Your task to perform on an android device: turn on bluetooth scan Image 0: 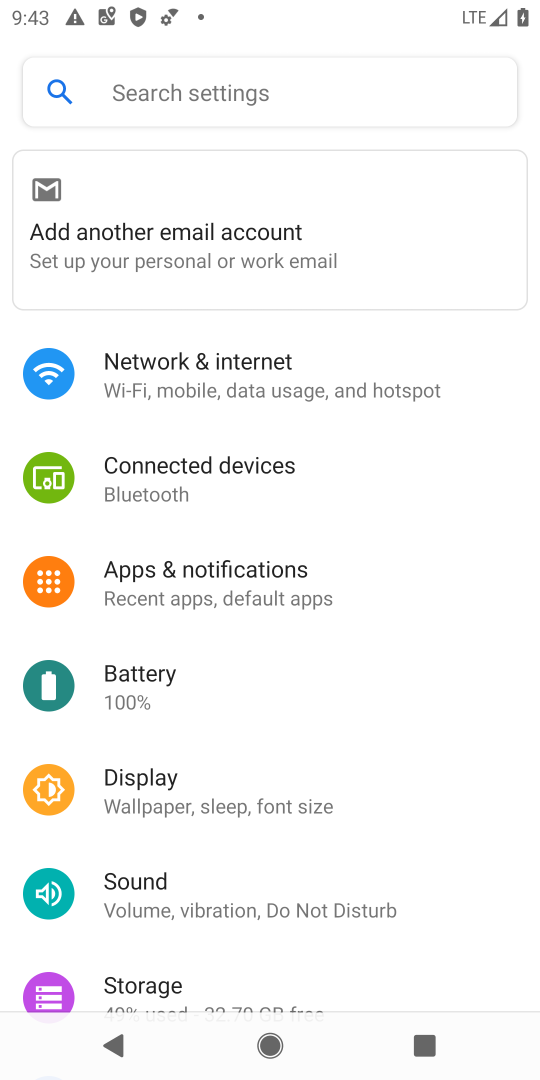
Step 0: drag from (258, 816) to (198, 179)
Your task to perform on an android device: turn on bluetooth scan Image 1: 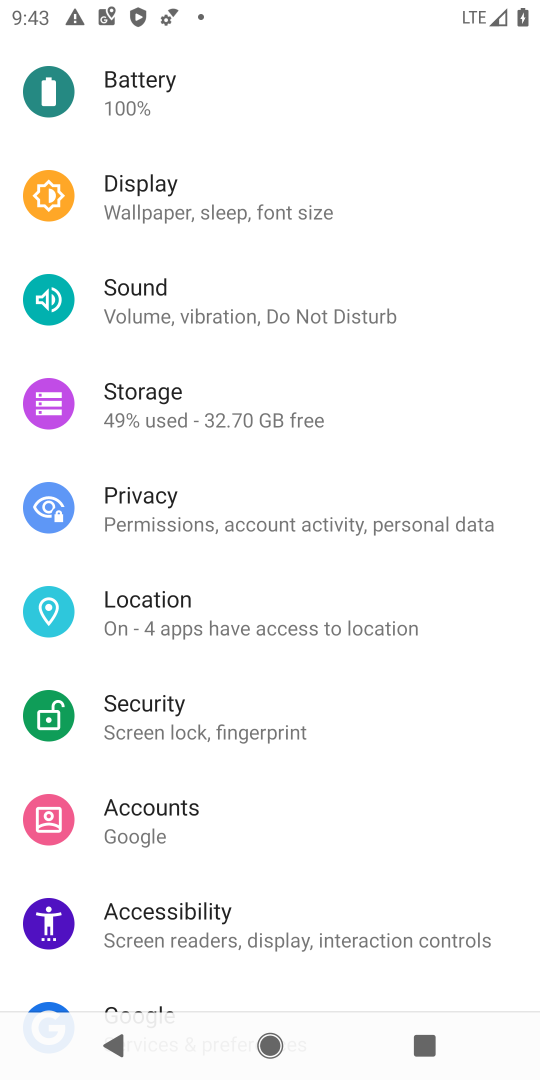
Step 1: drag from (216, 260) to (205, 186)
Your task to perform on an android device: turn on bluetooth scan Image 2: 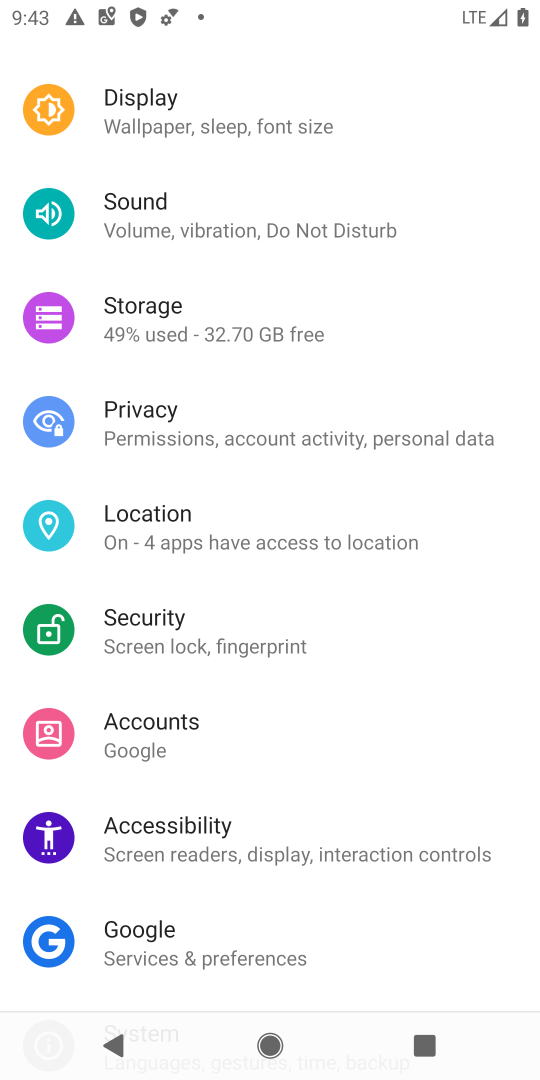
Step 2: click (143, 534)
Your task to perform on an android device: turn on bluetooth scan Image 3: 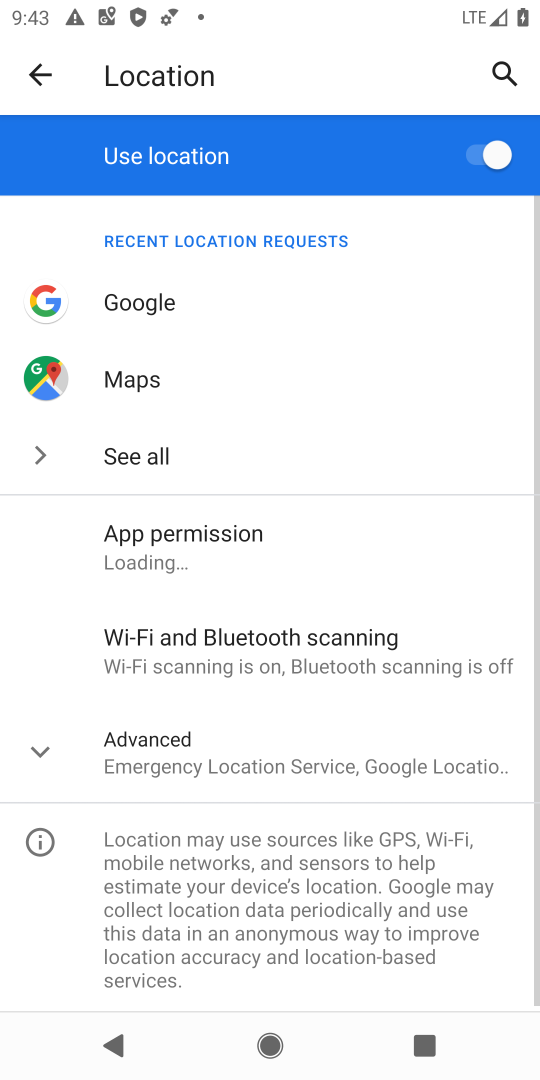
Step 3: click (254, 666)
Your task to perform on an android device: turn on bluetooth scan Image 4: 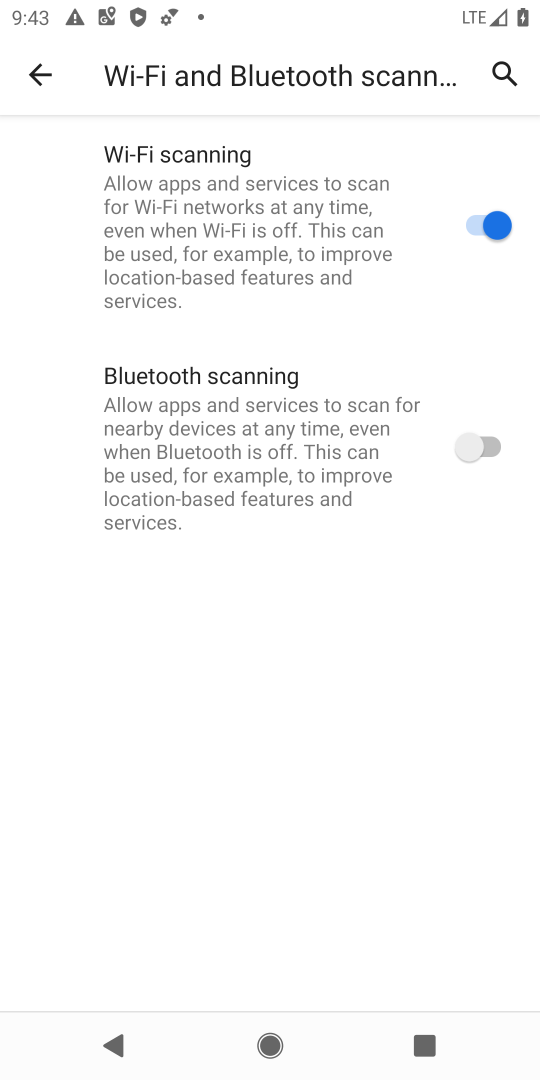
Step 4: click (477, 453)
Your task to perform on an android device: turn on bluetooth scan Image 5: 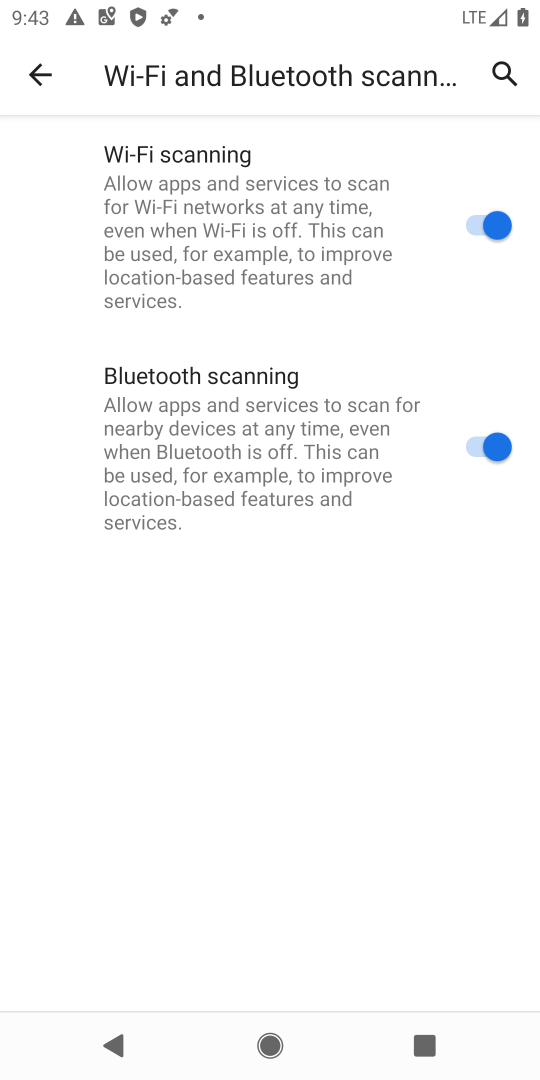
Step 5: task complete